Your task to perform on an android device: set an alarm Image 0: 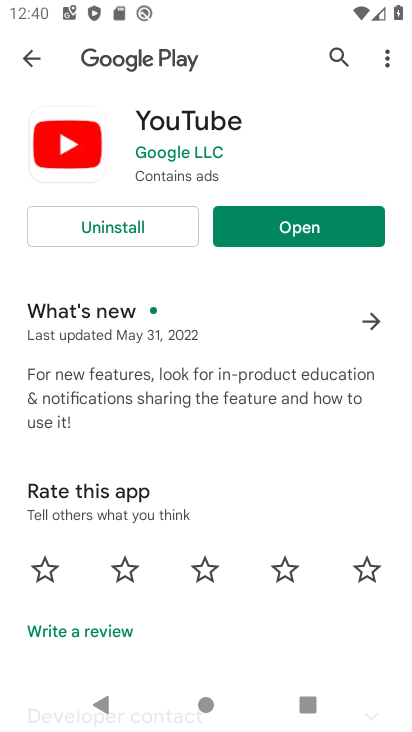
Step 0: press home button
Your task to perform on an android device: set an alarm Image 1: 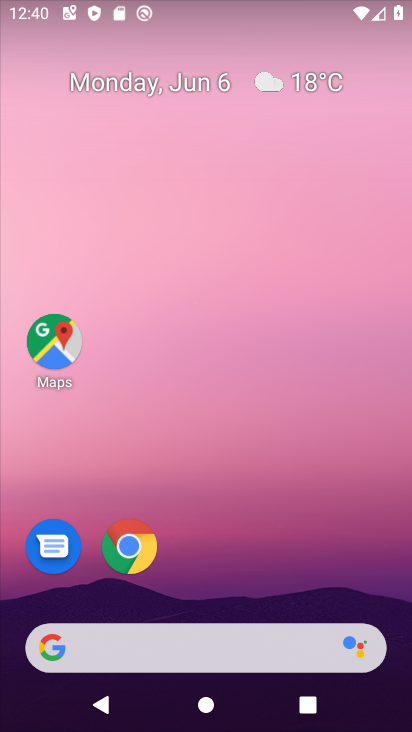
Step 1: drag from (291, 605) to (290, 158)
Your task to perform on an android device: set an alarm Image 2: 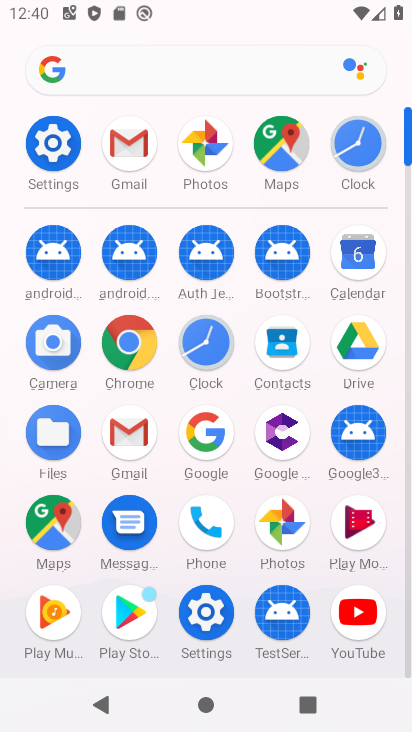
Step 2: click (354, 151)
Your task to perform on an android device: set an alarm Image 3: 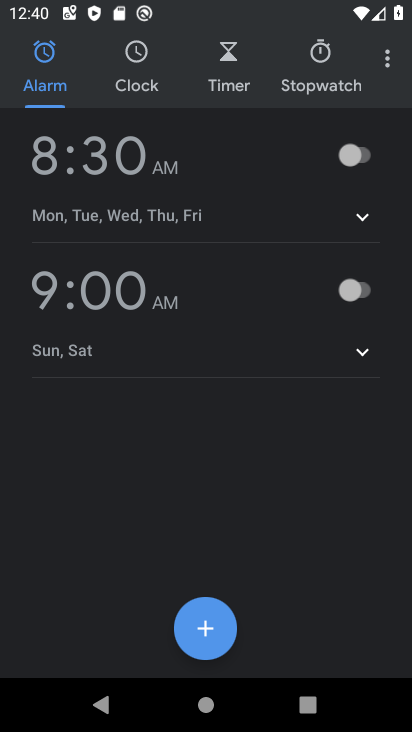
Step 3: click (138, 186)
Your task to perform on an android device: set an alarm Image 4: 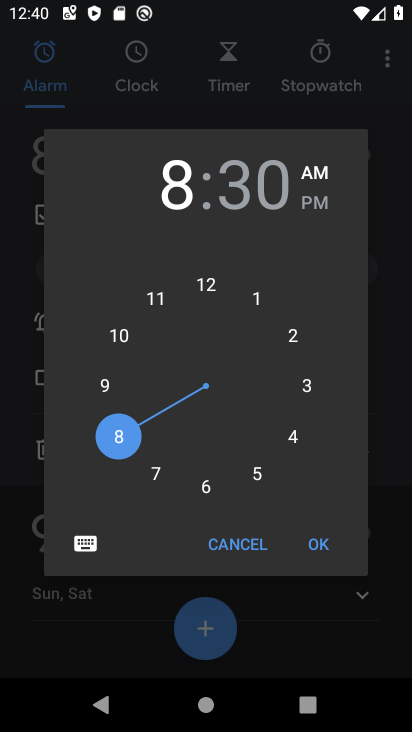
Step 4: click (315, 546)
Your task to perform on an android device: set an alarm Image 5: 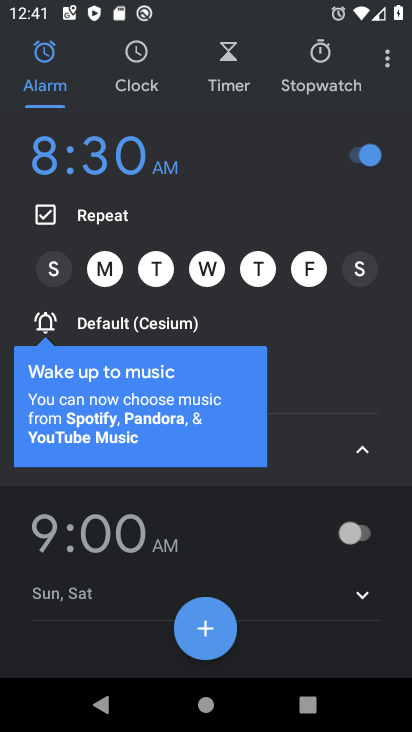
Step 5: task complete